Your task to perform on an android device: add a contact Image 0: 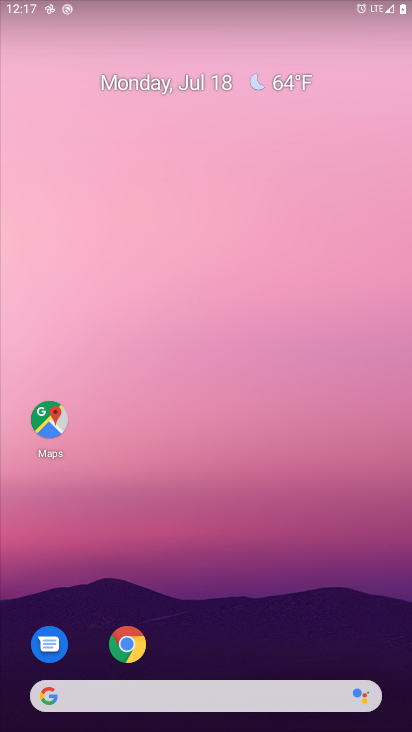
Step 0: press home button
Your task to perform on an android device: add a contact Image 1: 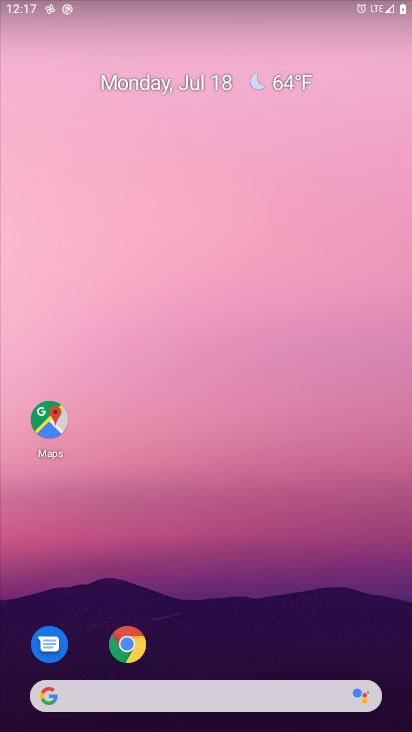
Step 1: drag from (309, 547) to (283, 121)
Your task to perform on an android device: add a contact Image 2: 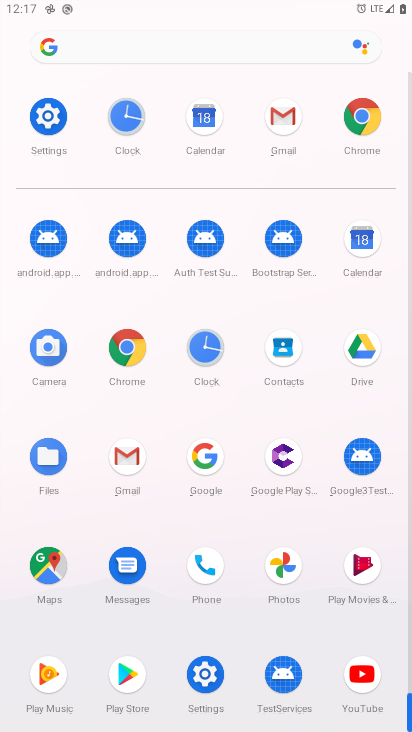
Step 2: click (285, 358)
Your task to perform on an android device: add a contact Image 3: 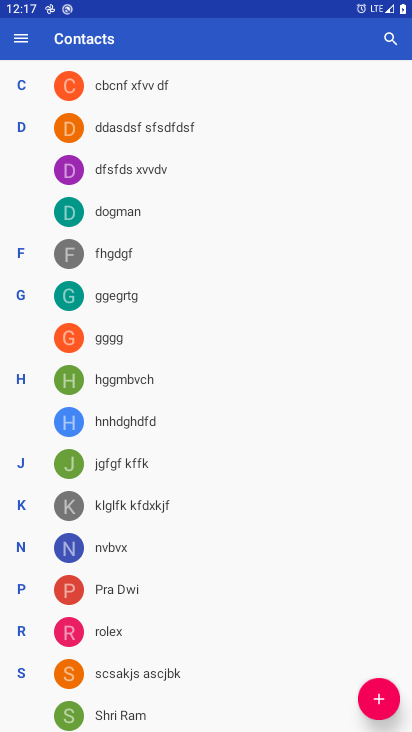
Step 3: click (375, 691)
Your task to perform on an android device: add a contact Image 4: 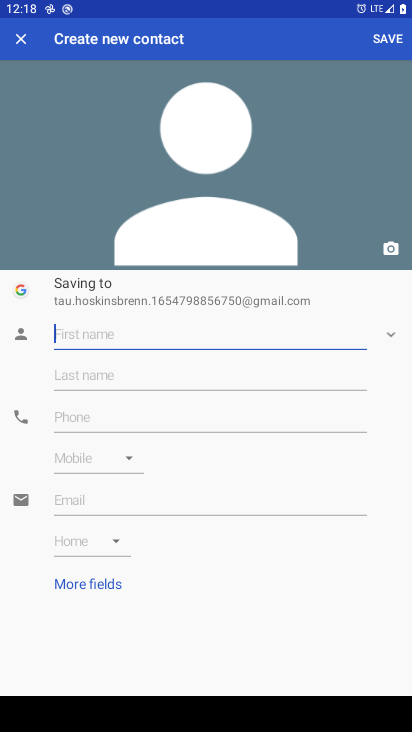
Step 4: type "dffvfvfvvfvv"
Your task to perform on an android device: add a contact Image 5: 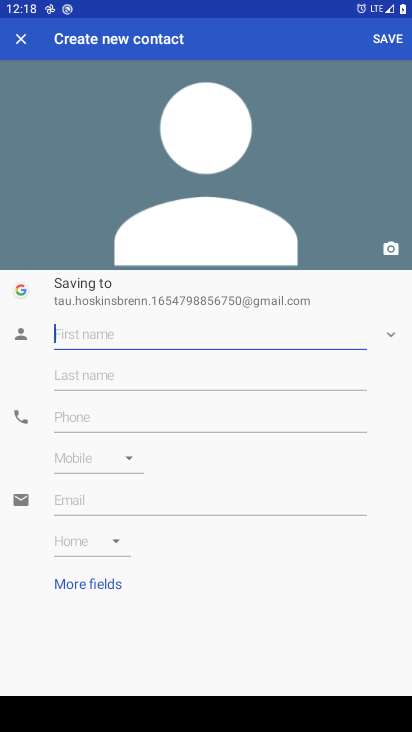
Step 5: click (127, 419)
Your task to perform on an android device: add a contact Image 6: 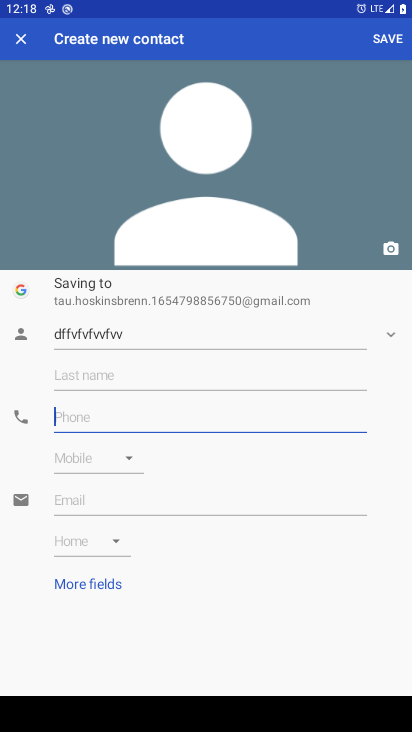
Step 6: click (74, 418)
Your task to perform on an android device: add a contact Image 7: 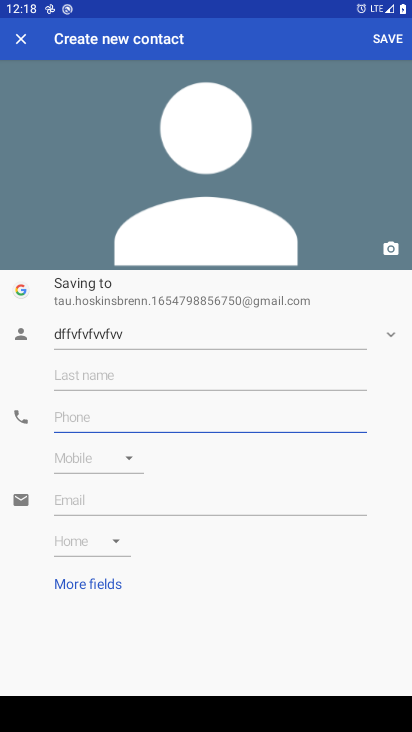
Step 7: type "4444566666"
Your task to perform on an android device: add a contact Image 8: 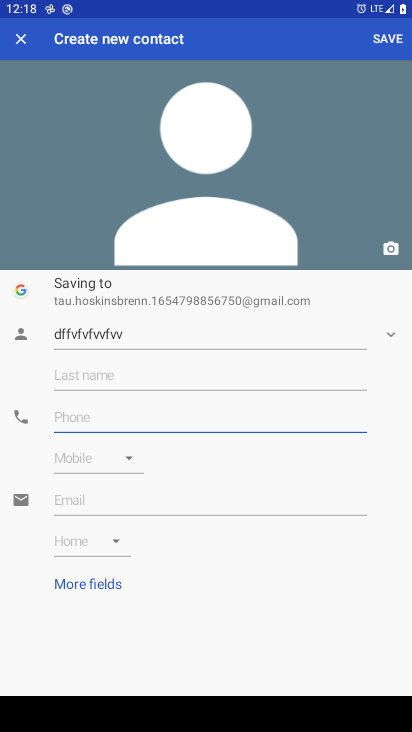
Step 8: click (117, 419)
Your task to perform on an android device: add a contact Image 9: 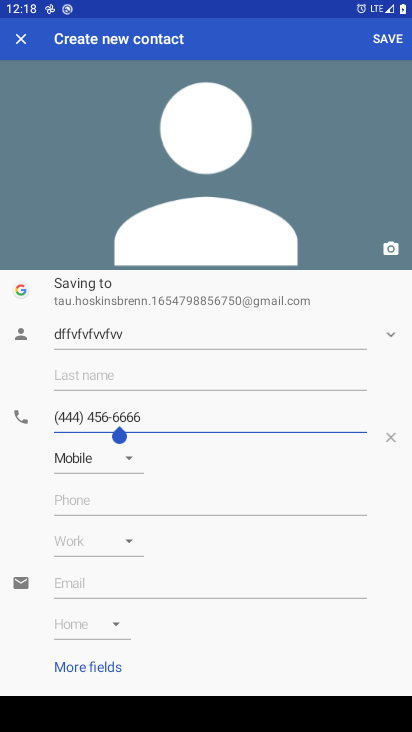
Step 9: click (385, 39)
Your task to perform on an android device: add a contact Image 10: 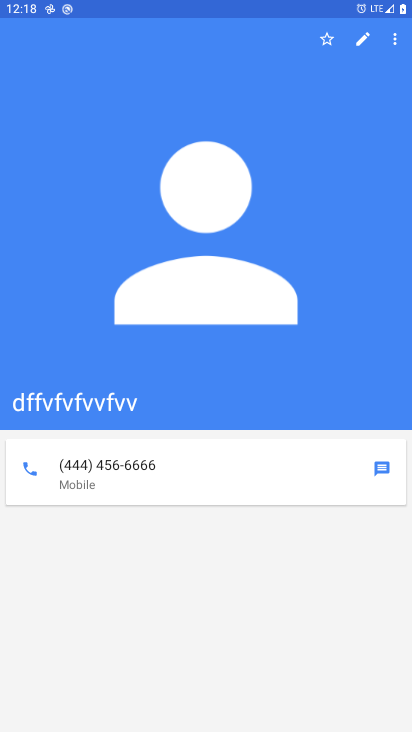
Step 10: task complete